Your task to perform on an android device: open sync settings in chrome Image 0: 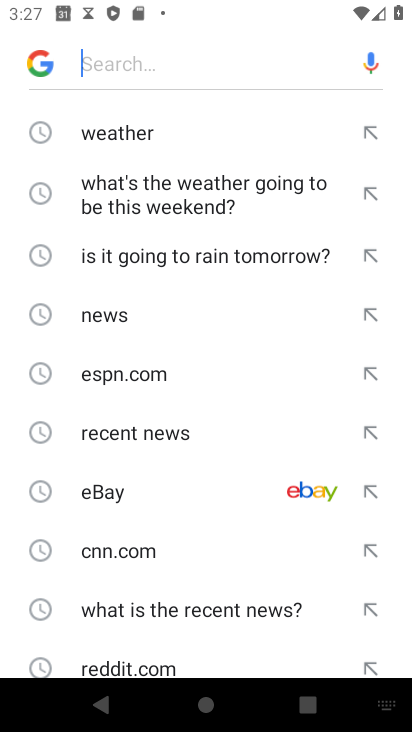
Step 0: press home button
Your task to perform on an android device: open sync settings in chrome Image 1: 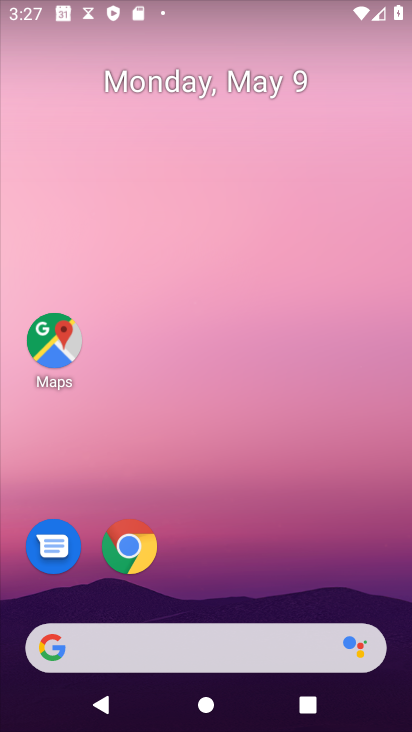
Step 1: drag from (293, 543) to (188, 140)
Your task to perform on an android device: open sync settings in chrome Image 2: 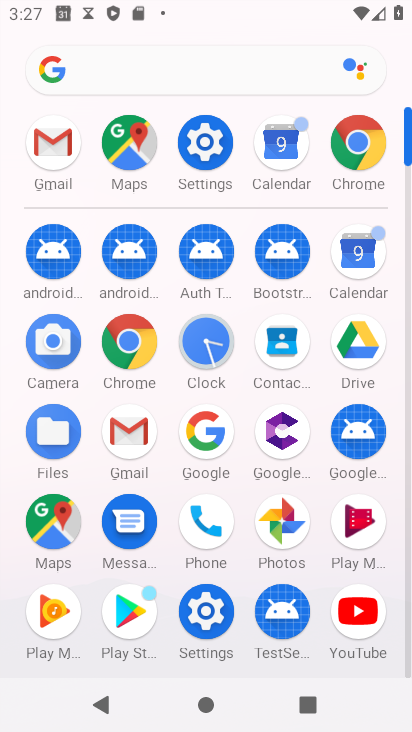
Step 2: click (372, 169)
Your task to perform on an android device: open sync settings in chrome Image 3: 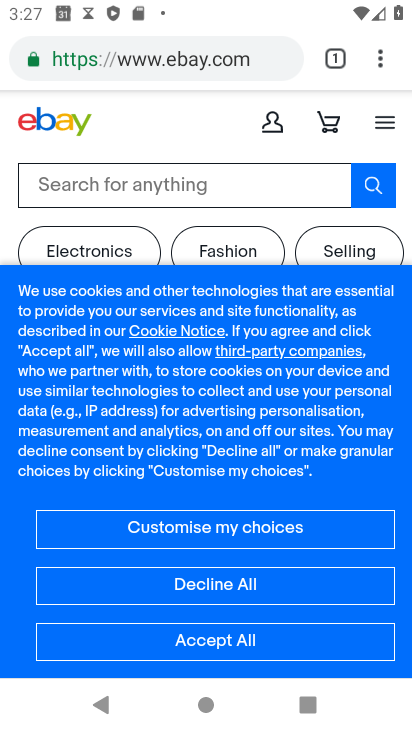
Step 3: drag from (373, 55) to (175, 578)
Your task to perform on an android device: open sync settings in chrome Image 4: 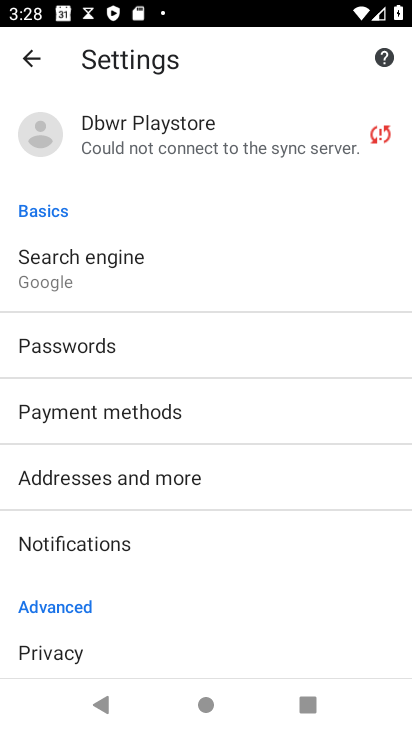
Step 4: drag from (158, 601) to (157, 307)
Your task to perform on an android device: open sync settings in chrome Image 5: 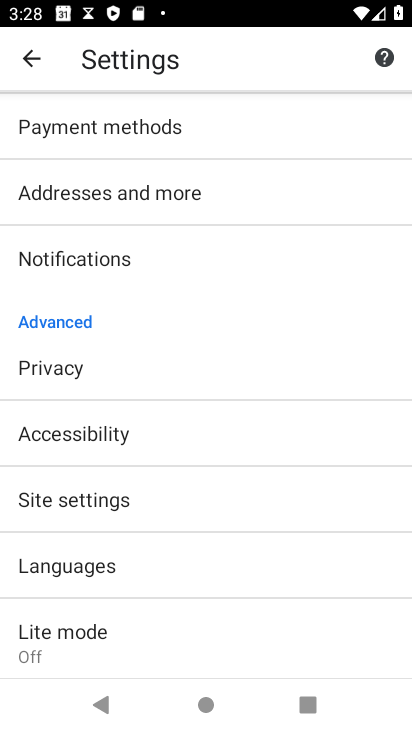
Step 5: click (149, 506)
Your task to perform on an android device: open sync settings in chrome Image 6: 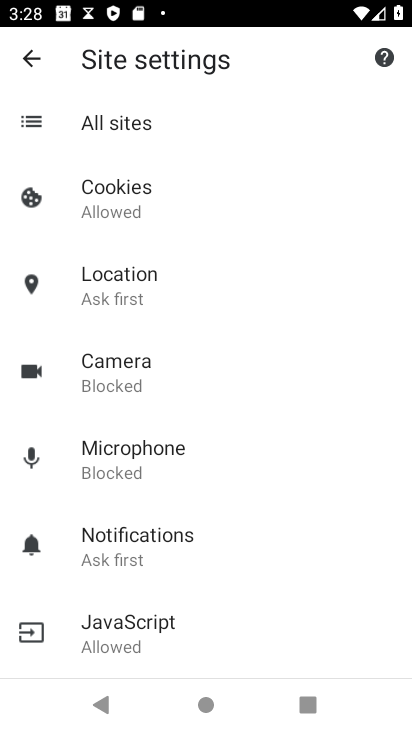
Step 6: drag from (191, 579) to (231, 282)
Your task to perform on an android device: open sync settings in chrome Image 7: 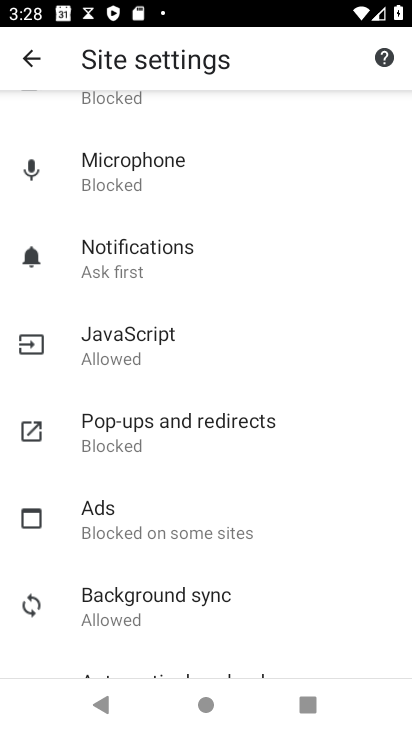
Step 7: drag from (231, 282) to (286, 603)
Your task to perform on an android device: open sync settings in chrome Image 8: 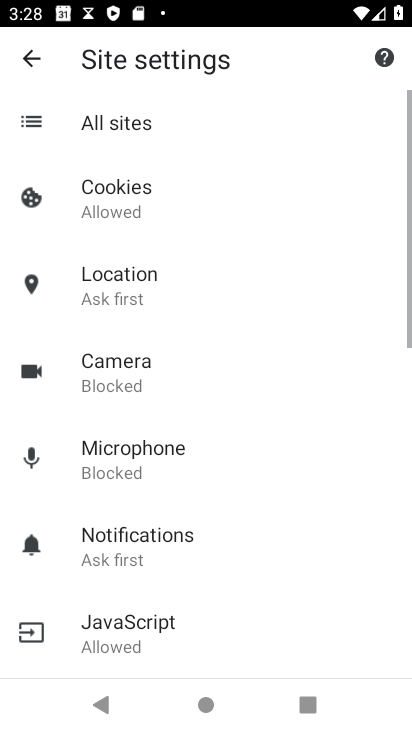
Step 8: drag from (257, 355) to (292, 631)
Your task to perform on an android device: open sync settings in chrome Image 9: 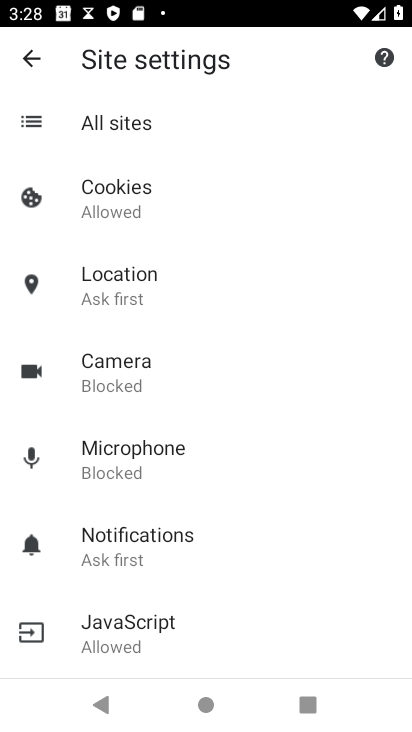
Step 9: drag from (195, 583) to (201, 278)
Your task to perform on an android device: open sync settings in chrome Image 10: 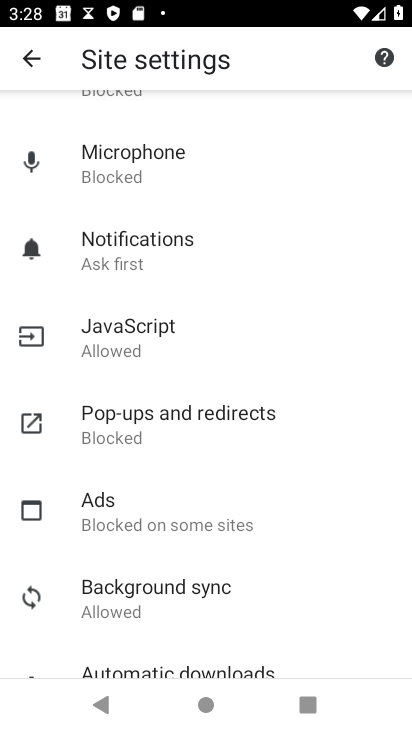
Step 10: drag from (158, 585) to (178, 381)
Your task to perform on an android device: open sync settings in chrome Image 11: 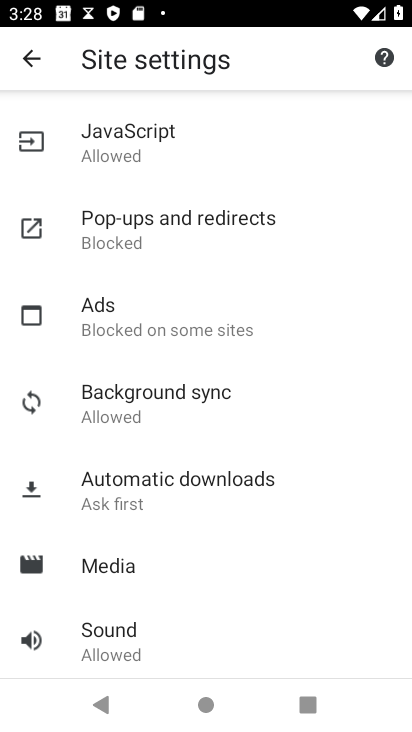
Step 11: drag from (133, 616) to (143, 380)
Your task to perform on an android device: open sync settings in chrome Image 12: 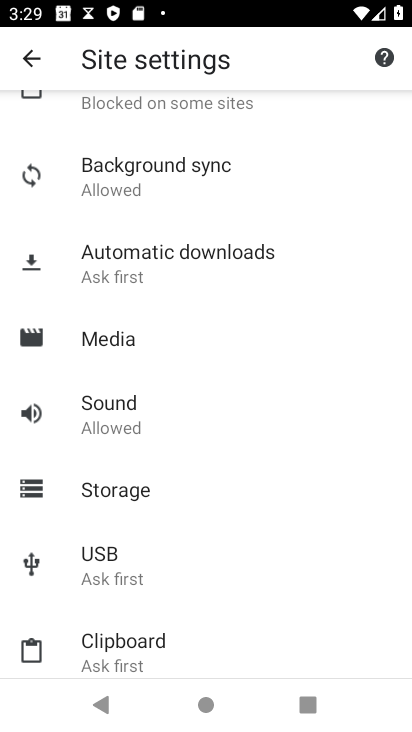
Step 12: click (152, 169)
Your task to perform on an android device: open sync settings in chrome Image 13: 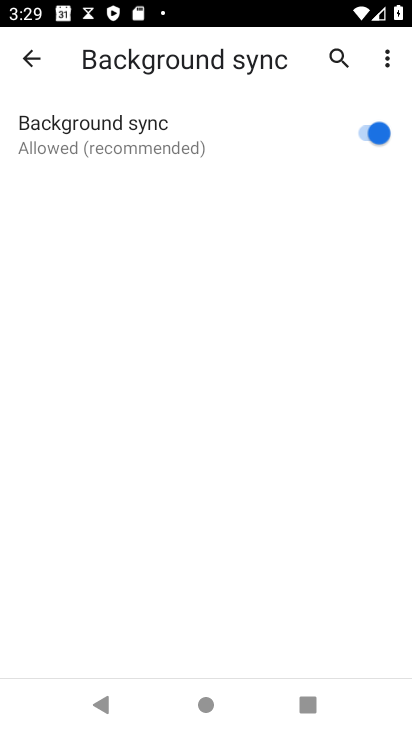
Step 13: task complete